Your task to perform on an android device: open a bookmark in the chrome app Image 0: 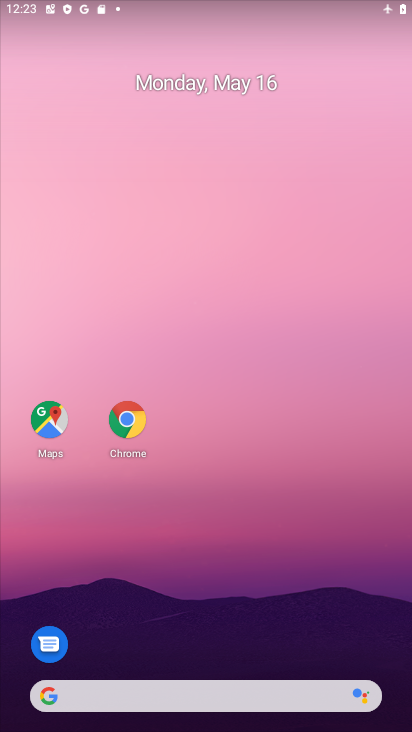
Step 0: drag from (153, 651) to (205, 312)
Your task to perform on an android device: open a bookmark in the chrome app Image 1: 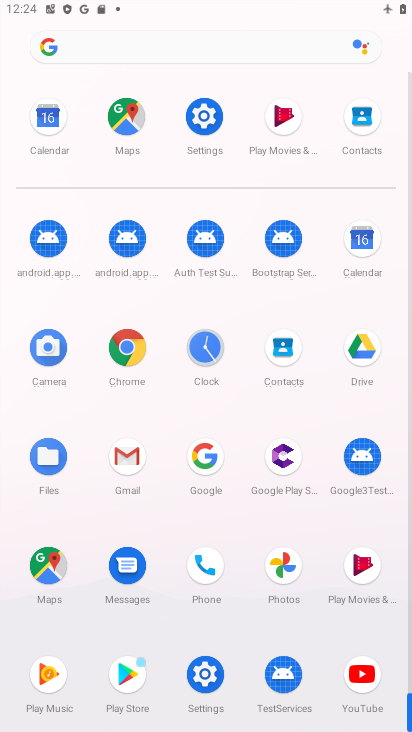
Step 1: click (130, 347)
Your task to perform on an android device: open a bookmark in the chrome app Image 2: 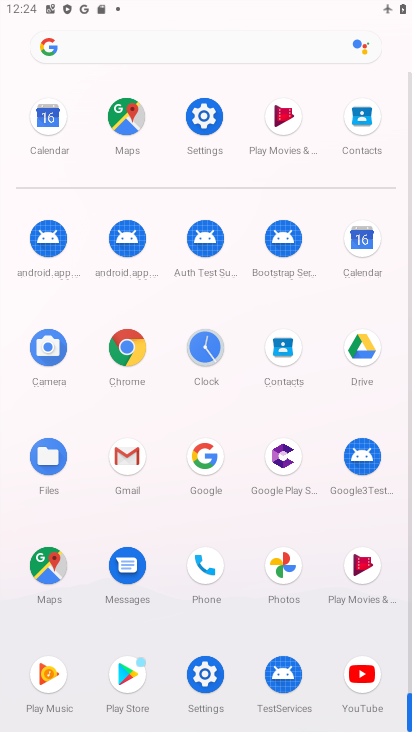
Step 2: click (130, 347)
Your task to perform on an android device: open a bookmark in the chrome app Image 3: 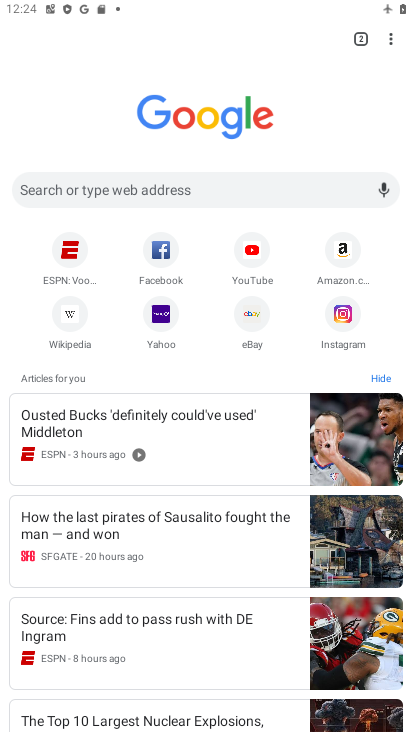
Step 3: task complete